Your task to perform on an android device: Clear the cart on target. Add "amazon basics triple a" to the cart on target, then select checkout. Image 0: 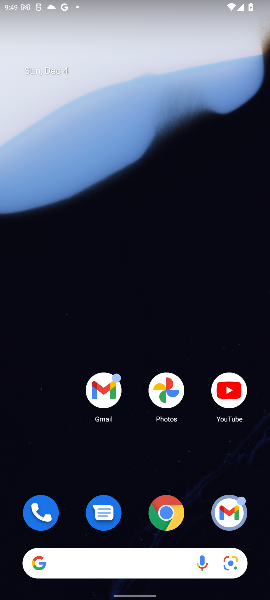
Step 0: click (158, 510)
Your task to perform on an android device: Clear the cart on target. Add "amazon basics triple a" to the cart on target, then select checkout. Image 1: 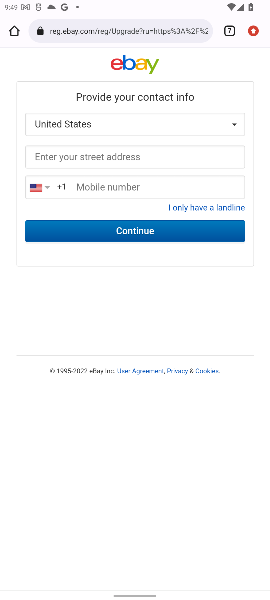
Step 1: click (224, 32)
Your task to perform on an android device: Clear the cart on target. Add "amazon basics triple a" to the cart on target, then select checkout. Image 2: 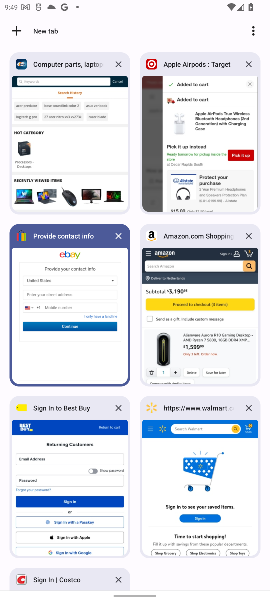
Step 2: click (192, 95)
Your task to perform on an android device: Clear the cart on target. Add "amazon basics triple a" to the cart on target, then select checkout. Image 3: 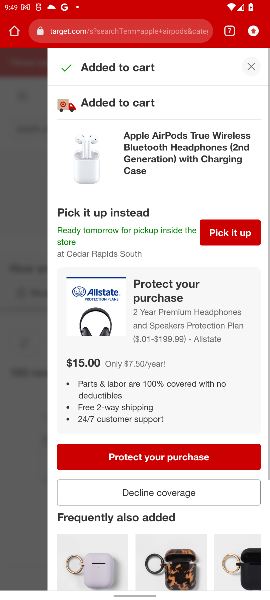
Step 3: click (255, 68)
Your task to perform on an android device: Clear the cart on target. Add "amazon basics triple a" to the cart on target, then select checkout. Image 4: 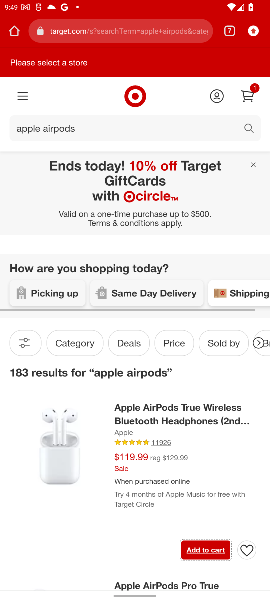
Step 4: click (253, 90)
Your task to perform on an android device: Clear the cart on target. Add "amazon basics triple a" to the cart on target, then select checkout. Image 5: 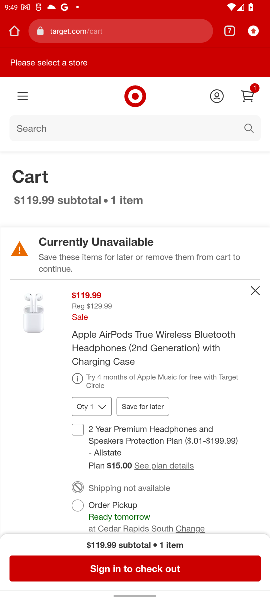
Step 5: click (254, 294)
Your task to perform on an android device: Clear the cart on target. Add "amazon basics triple a" to the cart on target, then select checkout. Image 6: 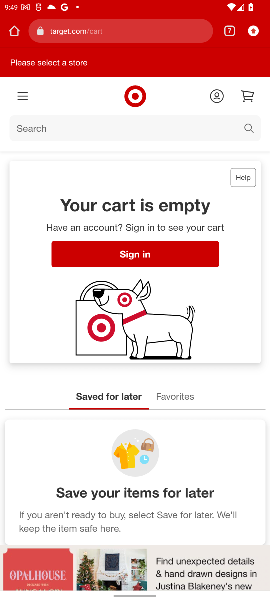
Step 6: click (47, 128)
Your task to perform on an android device: Clear the cart on target. Add "amazon basics triple a" to the cart on target, then select checkout. Image 7: 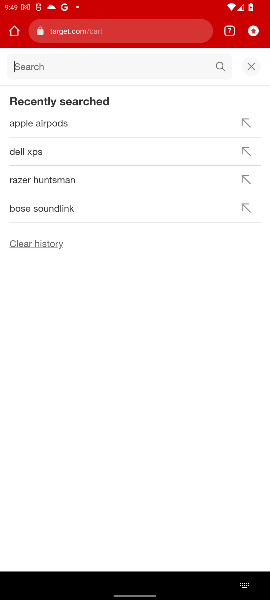
Step 7: type "amazon basics triple a"
Your task to perform on an android device: Clear the cart on target. Add "amazon basics triple a" to the cart on target, then select checkout. Image 8: 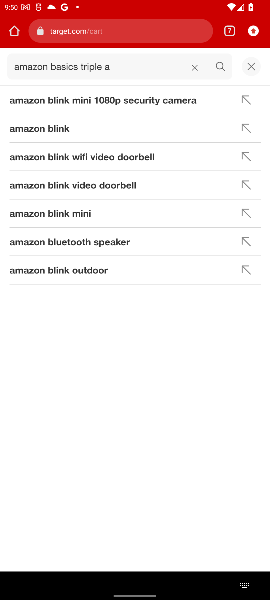
Step 8: click (219, 68)
Your task to perform on an android device: Clear the cart on target. Add "amazon basics triple a" to the cart on target, then select checkout. Image 9: 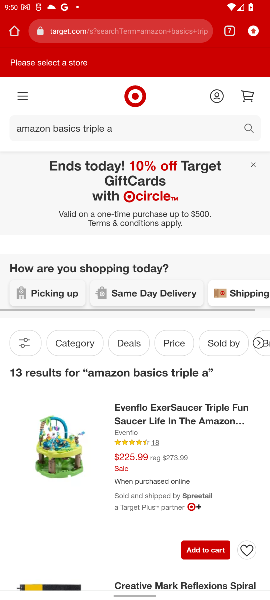
Step 9: task complete